Your task to perform on an android device: change keyboard looks Image 0: 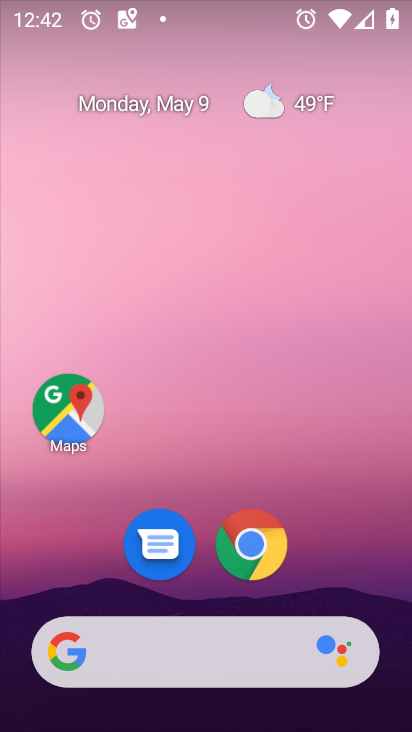
Step 0: drag from (206, 628) to (198, 149)
Your task to perform on an android device: change keyboard looks Image 1: 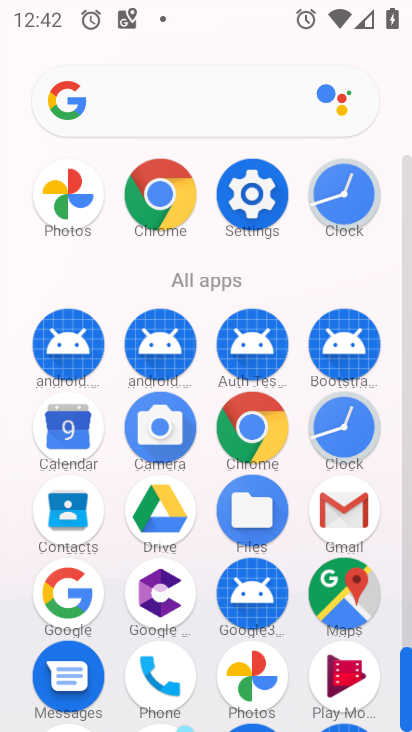
Step 1: click (233, 197)
Your task to perform on an android device: change keyboard looks Image 2: 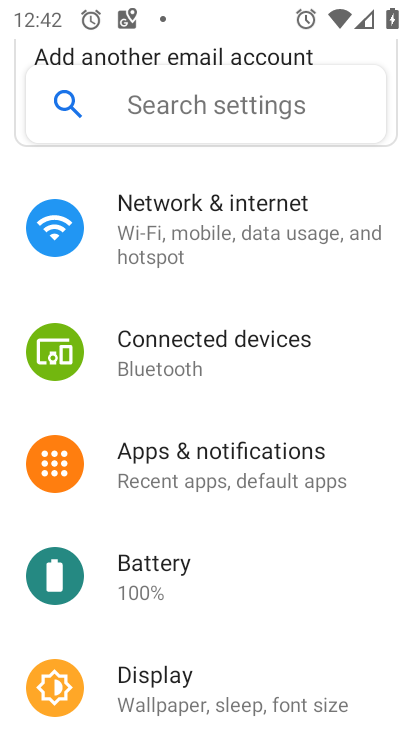
Step 2: drag from (264, 665) to (268, 34)
Your task to perform on an android device: change keyboard looks Image 3: 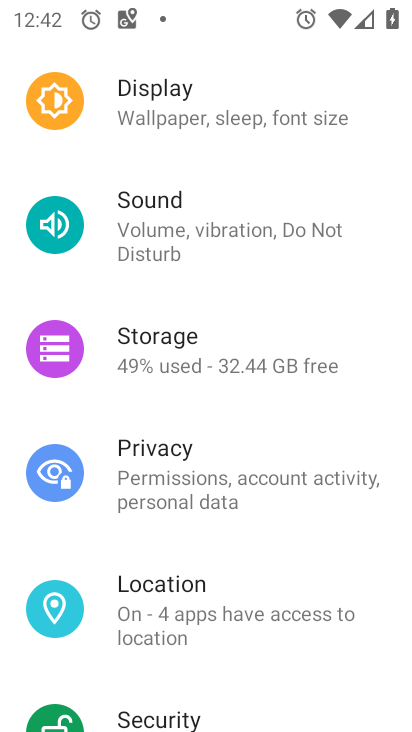
Step 3: drag from (283, 598) to (274, 186)
Your task to perform on an android device: change keyboard looks Image 4: 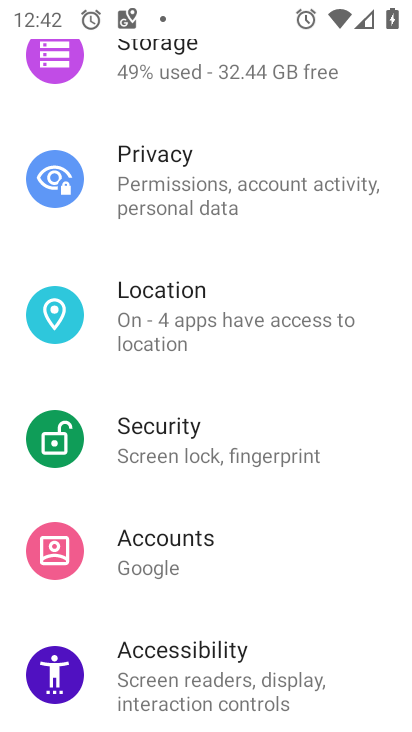
Step 4: drag from (201, 616) to (231, 204)
Your task to perform on an android device: change keyboard looks Image 5: 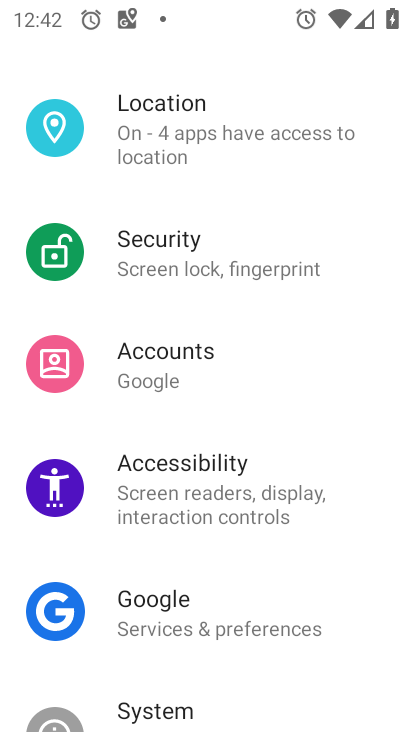
Step 5: drag from (247, 451) to (258, 281)
Your task to perform on an android device: change keyboard looks Image 6: 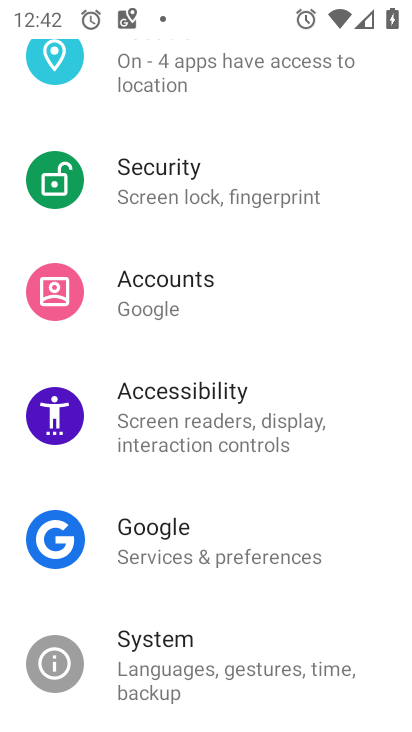
Step 6: click (190, 629)
Your task to perform on an android device: change keyboard looks Image 7: 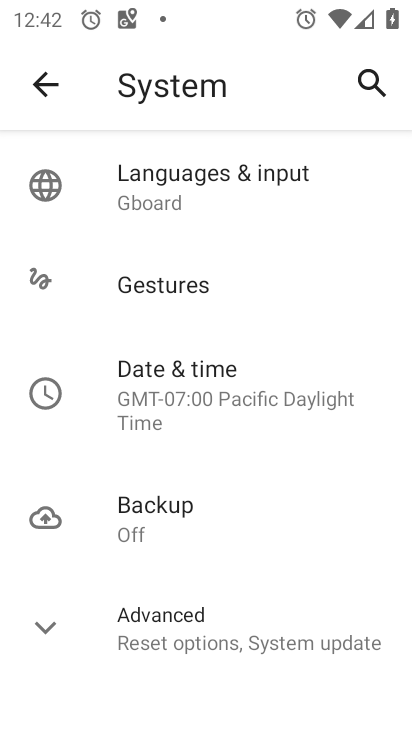
Step 7: click (237, 162)
Your task to perform on an android device: change keyboard looks Image 8: 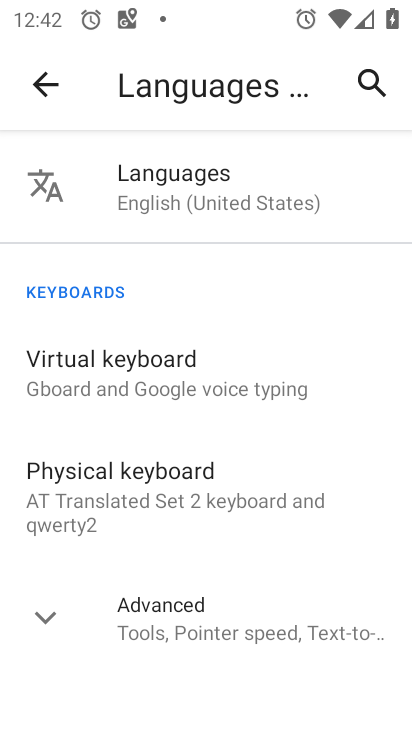
Step 8: click (203, 376)
Your task to perform on an android device: change keyboard looks Image 9: 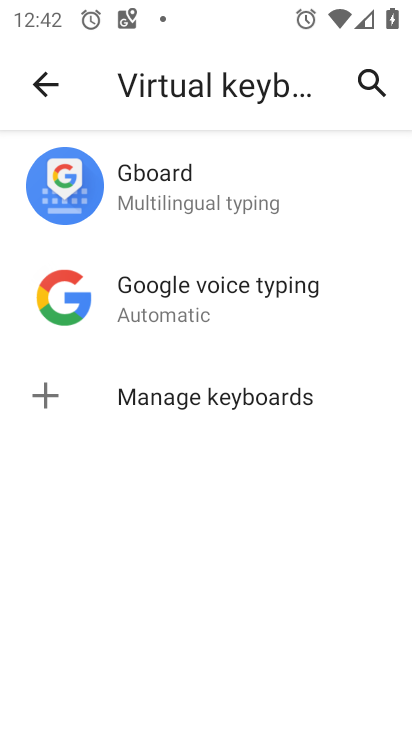
Step 9: click (172, 192)
Your task to perform on an android device: change keyboard looks Image 10: 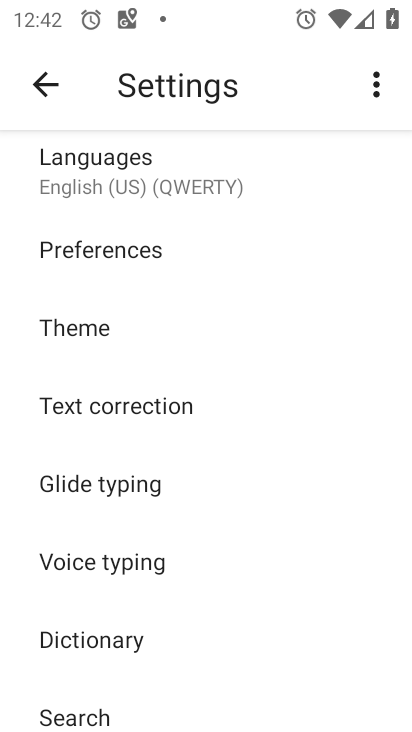
Step 10: click (102, 331)
Your task to perform on an android device: change keyboard looks Image 11: 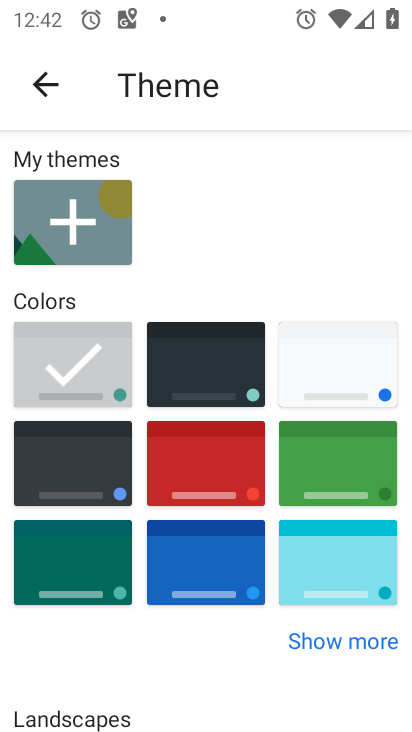
Step 11: click (300, 573)
Your task to perform on an android device: change keyboard looks Image 12: 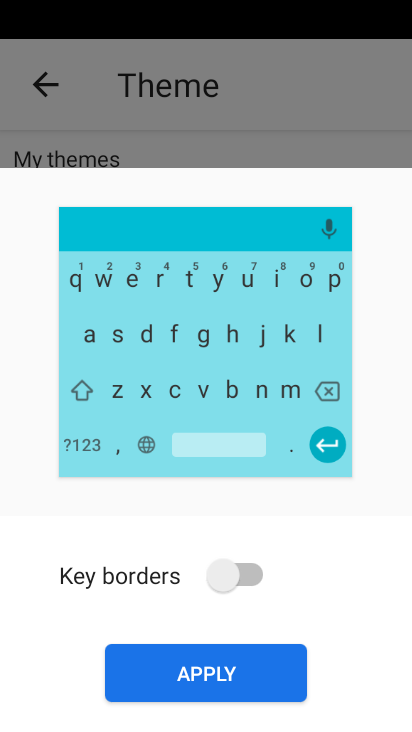
Step 12: click (234, 585)
Your task to perform on an android device: change keyboard looks Image 13: 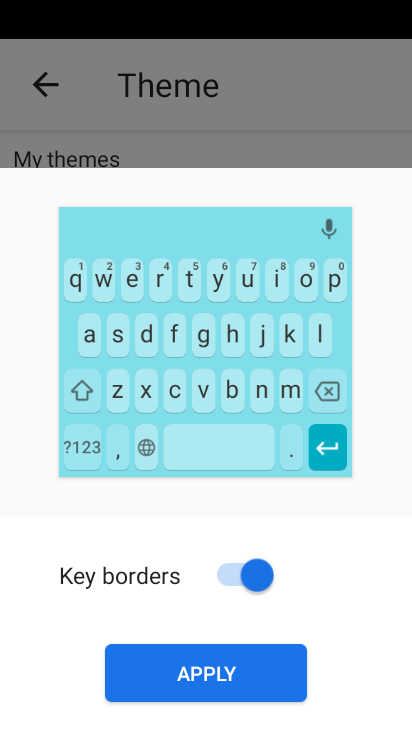
Step 13: click (219, 663)
Your task to perform on an android device: change keyboard looks Image 14: 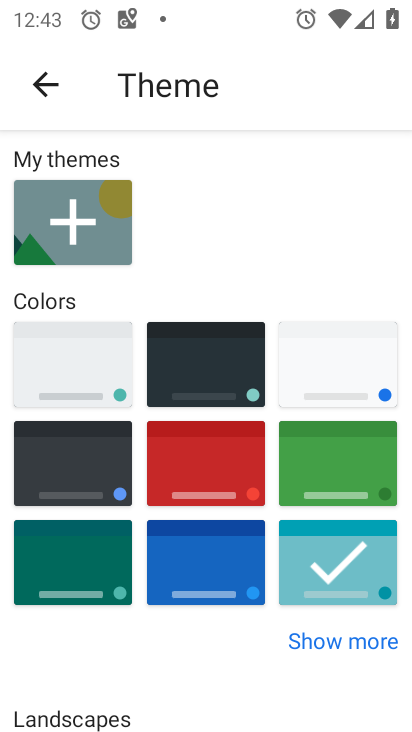
Step 14: task complete